Your task to perform on an android device: What is the news today? Image 0: 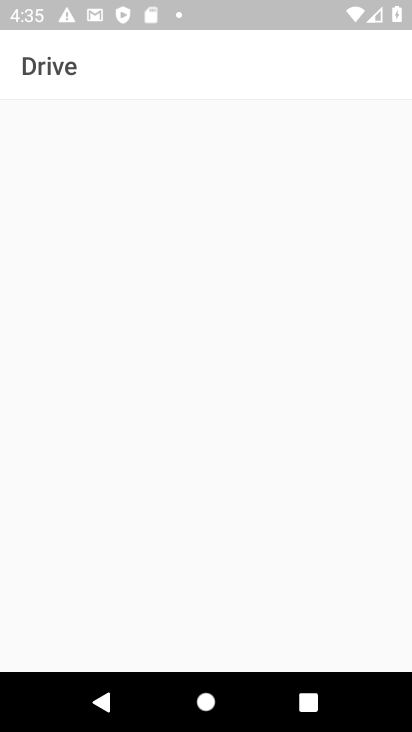
Step 0: drag from (191, 592) to (279, 186)
Your task to perform on an android device: What is the news today? Image 1: 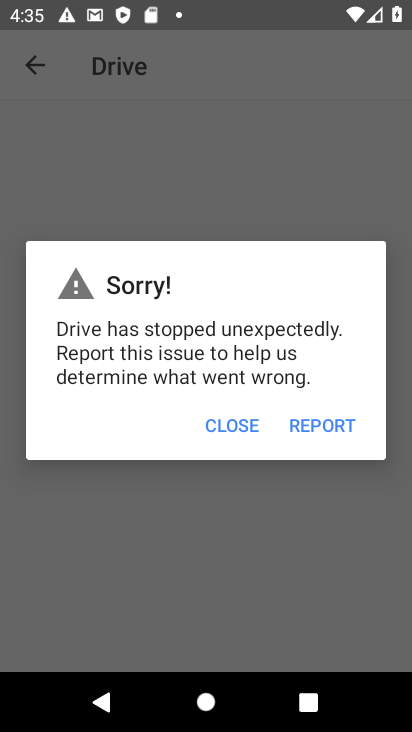
Step 1: drag from (245, 480) to (271, 307)
Your task to perform on an android device: What is the news today? Image 2: 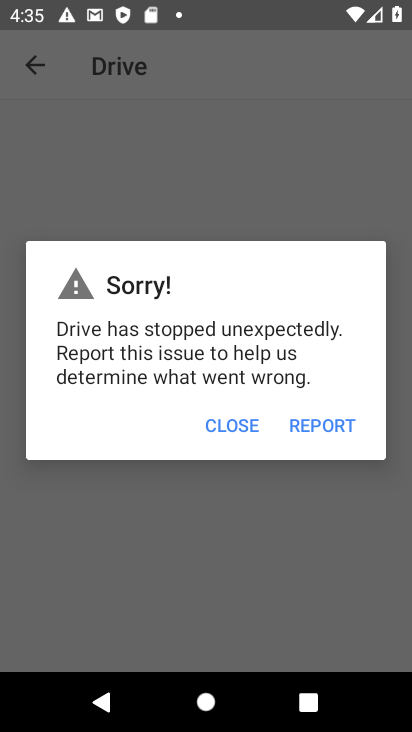
Step 2: click (193, 365)
Your task to perform on an android device: What is the news today? Image 3: 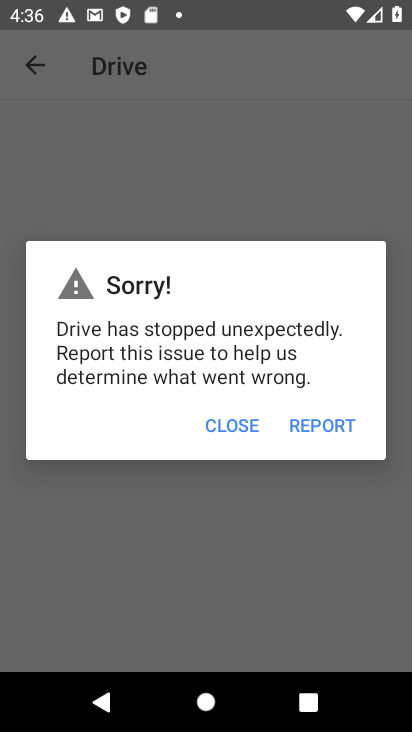
Step 3: drag from (190, 326) to (234, 138)
Your task to perform on an android device: What is the news today? Image 4: 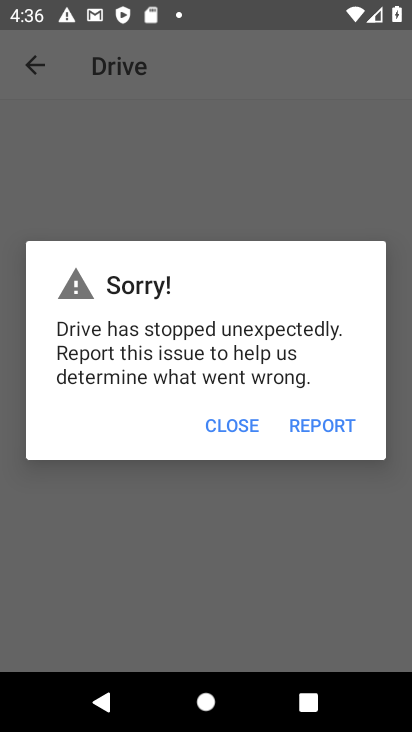
Step 4: drag from (196, 377) to (241, 181)
Your task to perform on an android device: What is the news today? Image 5: 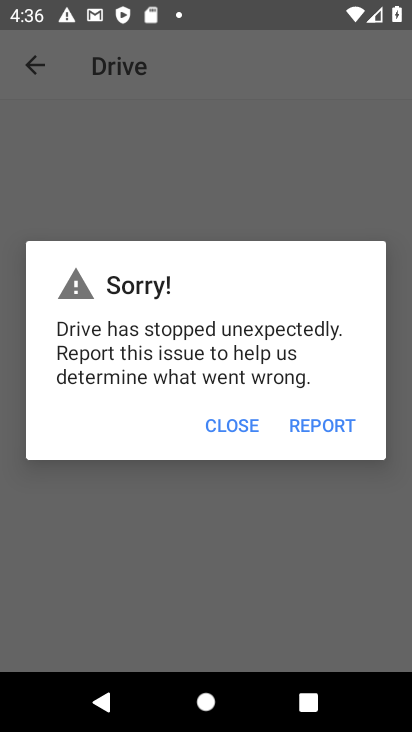
Step 5: press back button
Your task to perform on an android device: What is the news today? Image 6: 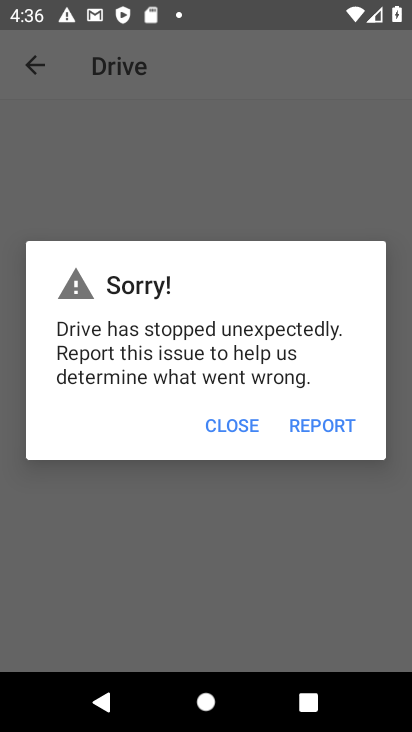
Step 6: press home button
Your task to perform on an android device: What is the news today? Image 7: 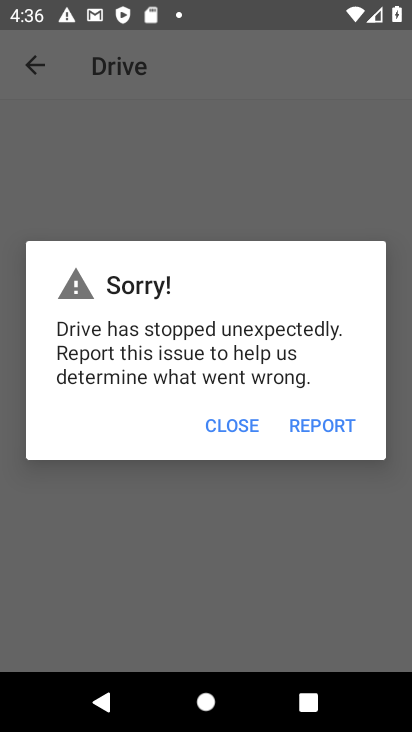
Step 7: press home button
Your task to perform on an android device: What is the news today? Image 8: 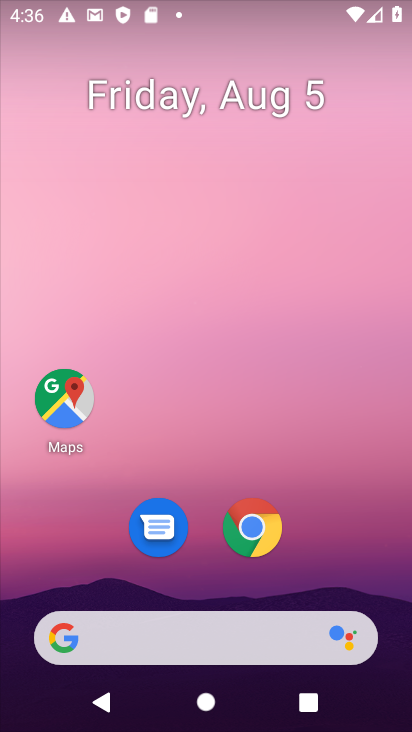
Step 8: drag from (189, 544) to (252, 4)
Your task to perform on an android device: What is the news today? Image 9: 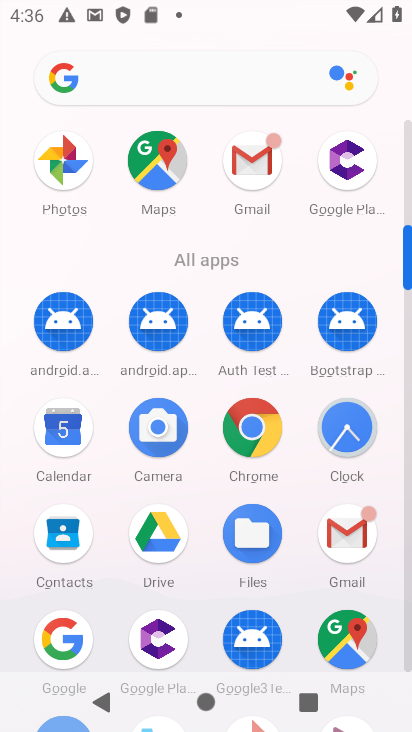
Step 9: click (188, 59)
Your task to perform on an android device: What is the news today? Image 10: 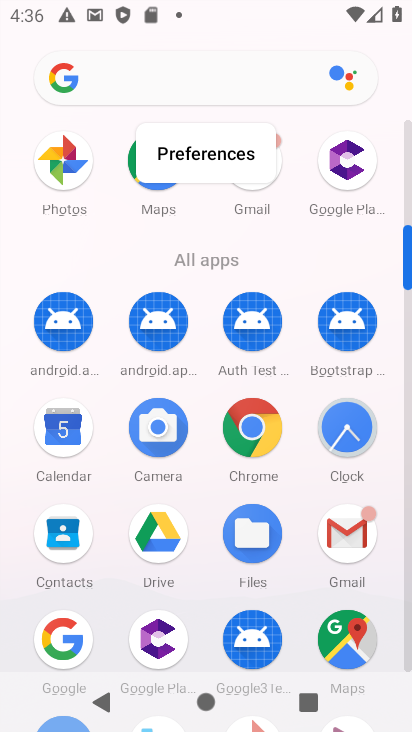
Step 10: click (238, 429)
Your task to perform on an android device: What is the news today? Image 11: 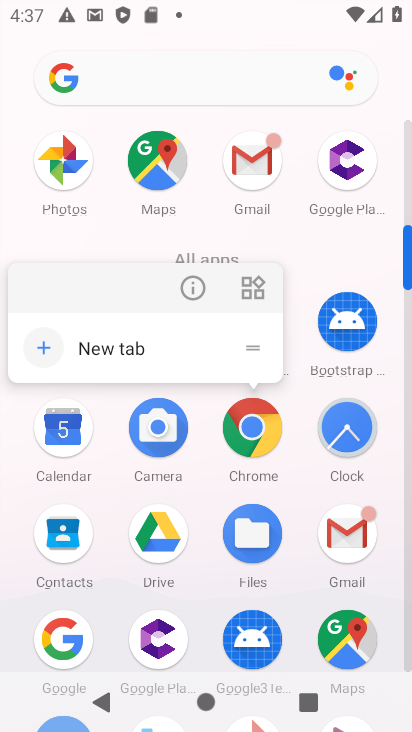
Step 11: click (190, 292)
Your task to perform on an android device: What is the news today? Image 12: 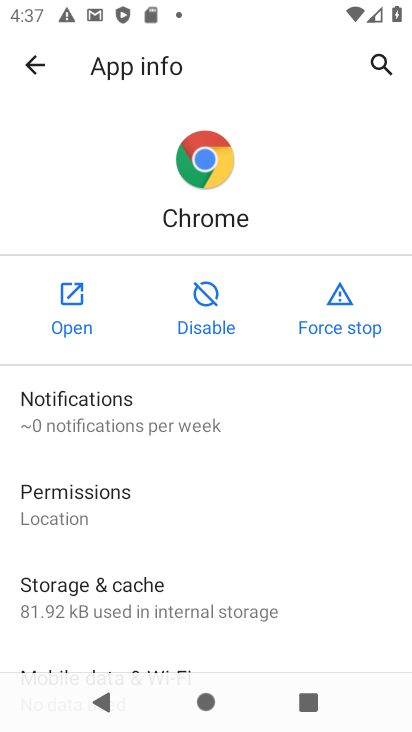
Step 12: click (62, 305)
Your task to perform on an android device: What is the news today? Image 13: 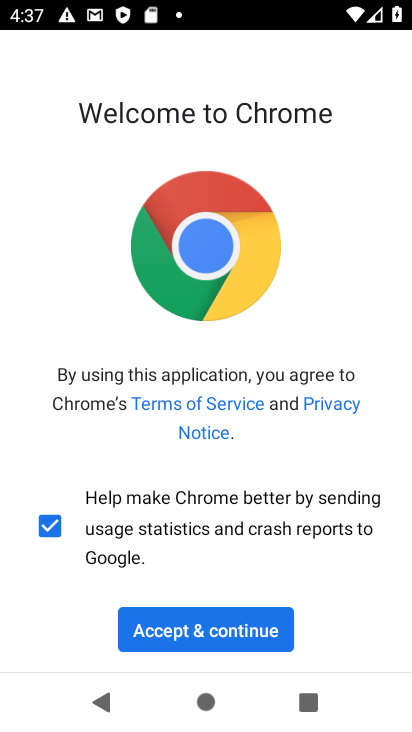
Step 13: drag from (279, 373) to (292, 202)
Your task to perform on an android device: What is the news today? Image 14: 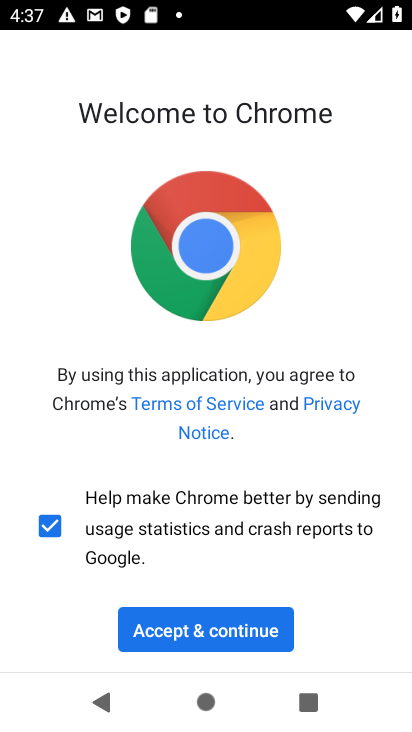
Step 14: drag from (217, 613) to (259, 301)
Your task to perform on an android device: What is the news today? Image 15: 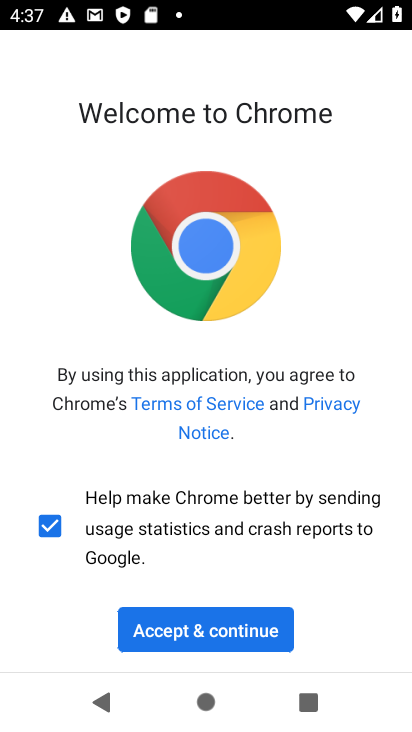
Step 15: click (224, 629)
Your task to perform on an android device: What is the news today? Image 16: 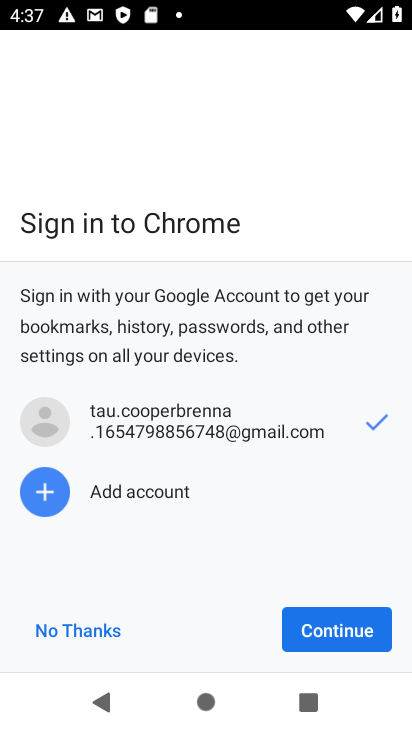
Step 16: click (223, 629)
Your task to perform on an android device: What is the news today? Image 17: 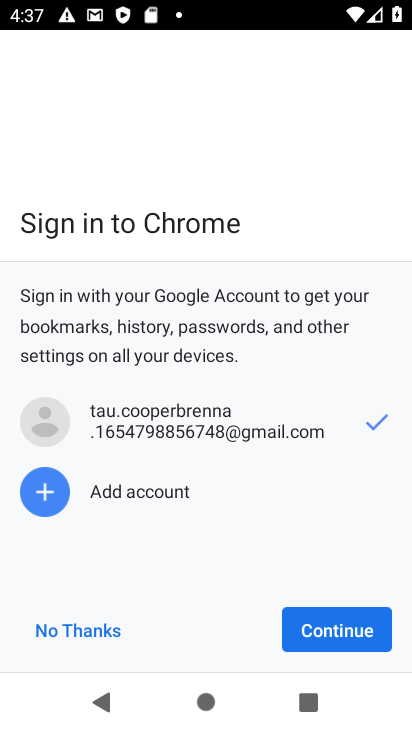
Step 17: click (222, 628)
Your task to perform on an android device: What is the news today? Image 18: 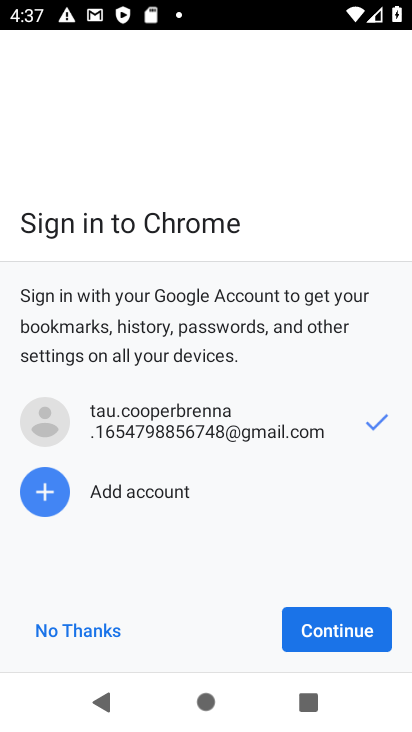
Step 18: click (276, 630)
Your task to perform on an android device: What is the news today? Image 19: 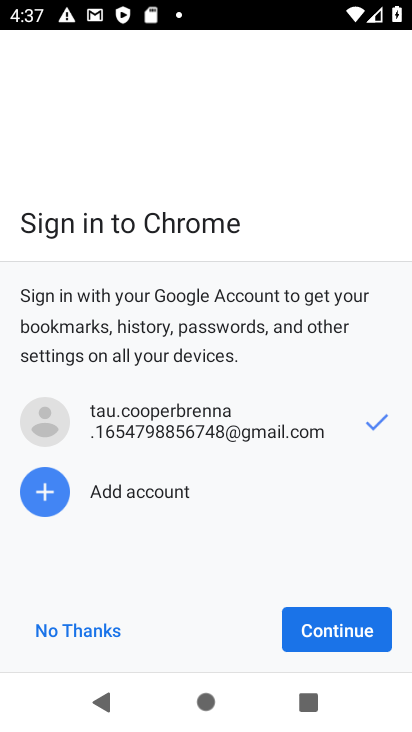
Step 19: click (289, 628)
Your task to perform on an android device: What is the news today? Image 20: 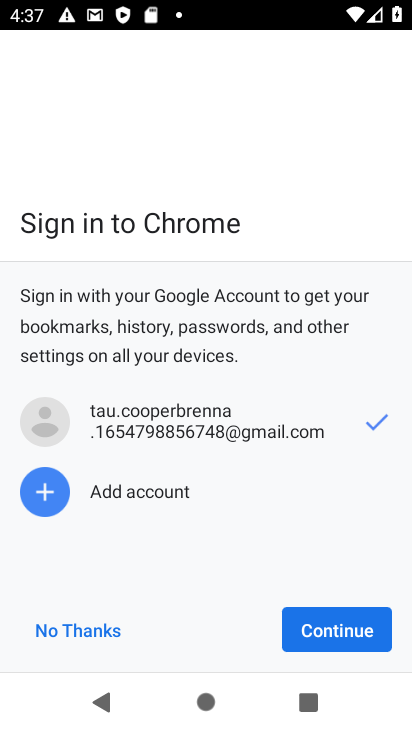
Step 20: click (313, 628)
Your task to perform on an android device: What is the news today? Image 21: 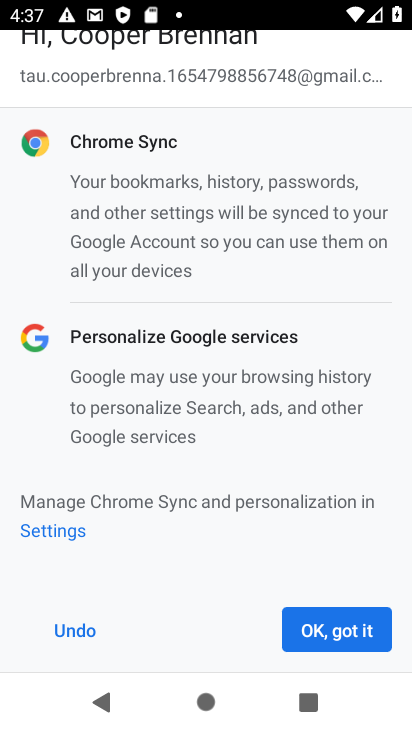
Step 21: click (334, 630)
Your task to perform on an android device: What is the news today? Image 22: 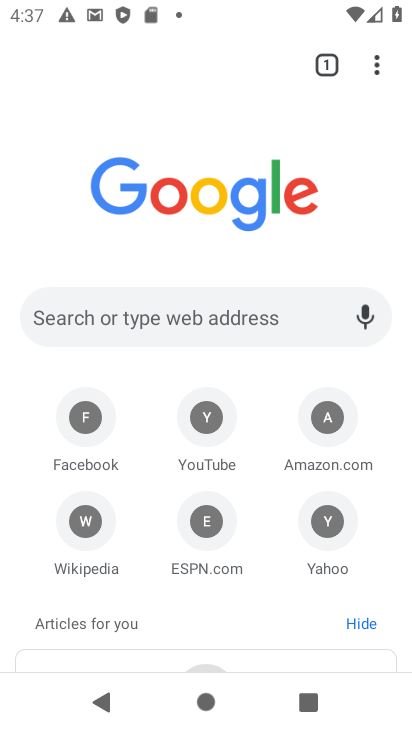
Step 22: click (152, 57)
Your task to perform on an android device: What is the news today? Image 23: 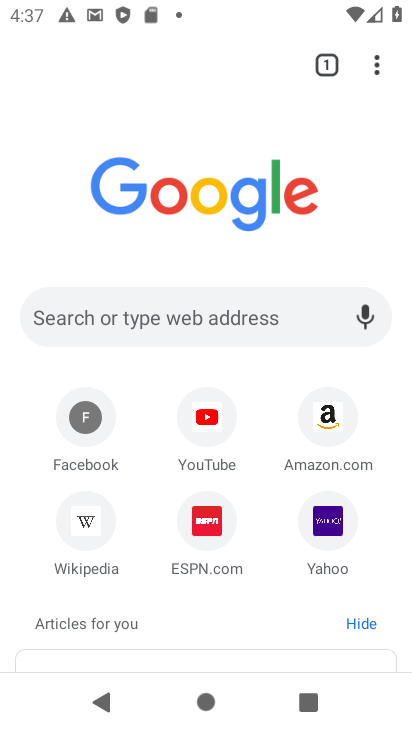
Step 23: click (164, 323)
Your task to perform on an android device: What is the news today? Image 24: 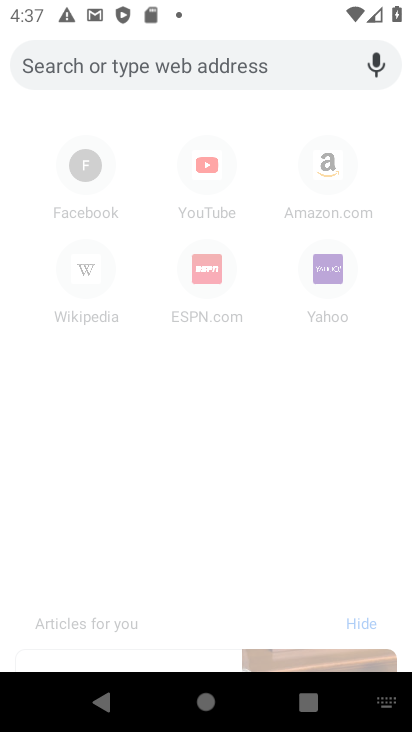
Step 24: type "news today?"
Your task to perform on an android device: What is the news today? Image 25: 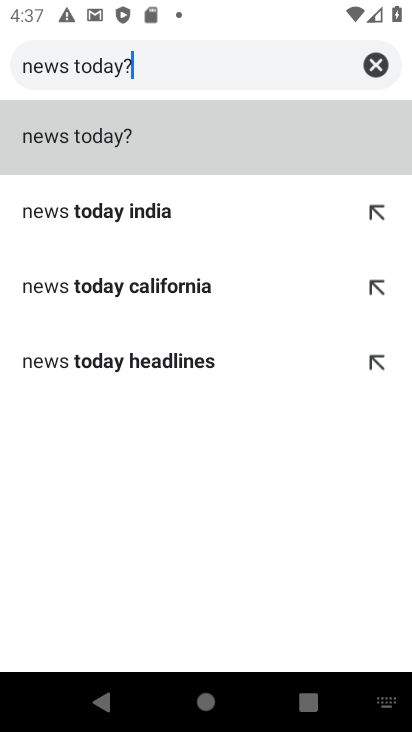
Step 25: type ""
Your task to perform on an android device: What is the news today? Image 26: 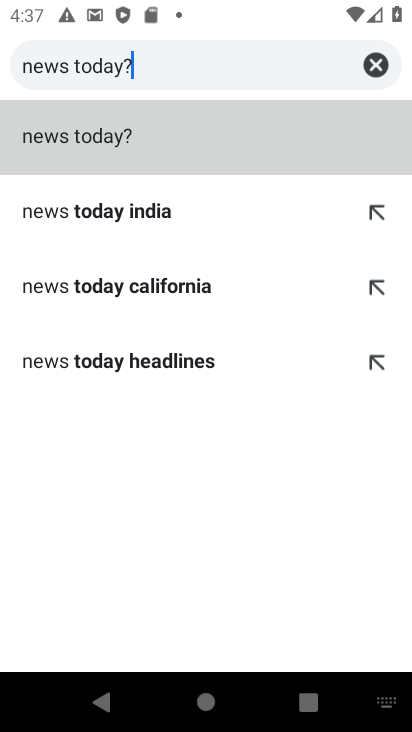
Step 26: click (129, 143)
Your task to perform on an android device: What is the news today? Image 27: 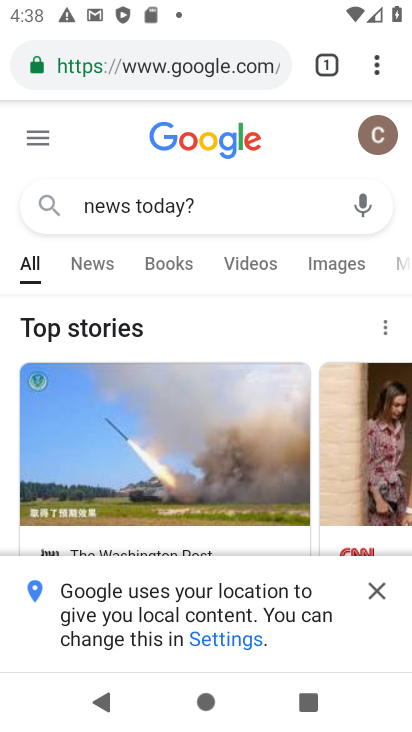
Step 27: task complete